Your task to perform on an android device: Search for a new foundation (skincare) product Image 0: 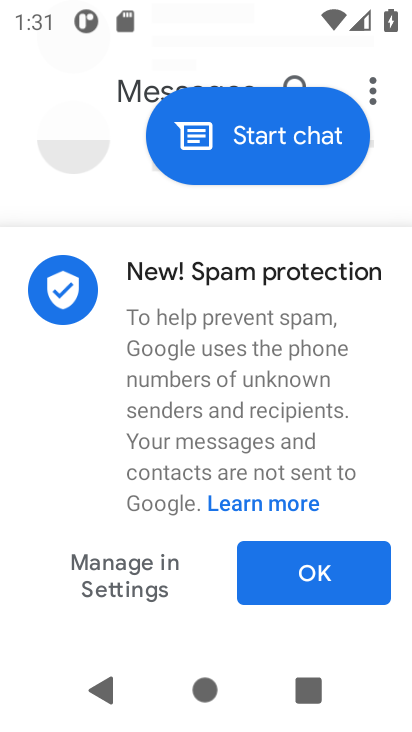
Step 0: press home button
Your task to perform on an android device: Search for a new foundation (skincare) product Image 1: 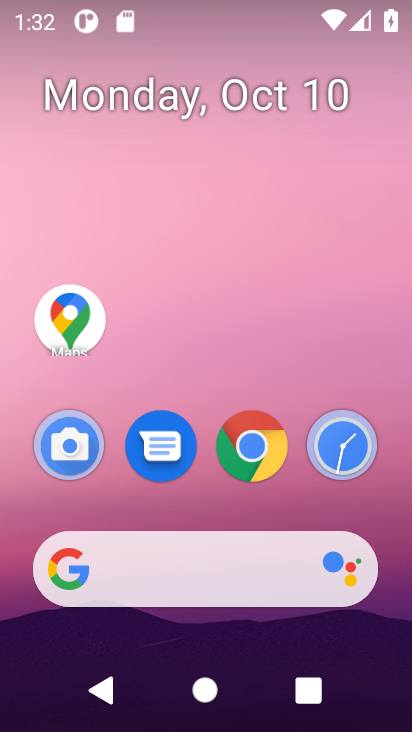
Step 1: click (187, 553)
Your task to perform on an android device: Search for a new foundation (skincare) product Image 2: 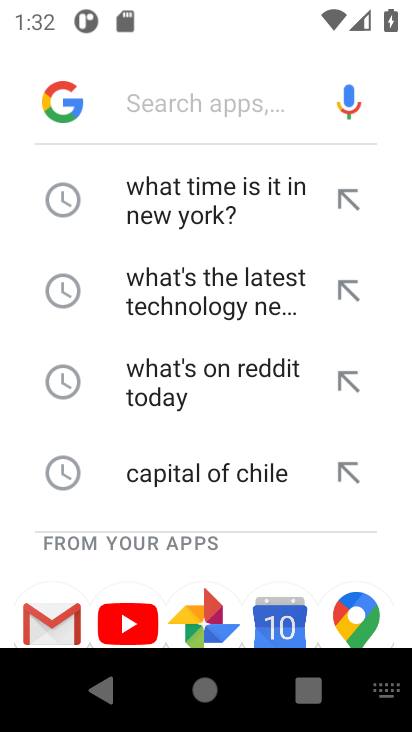
Step 2: type " new foundation (skincare) product"
Your task to perform on an android device: Search for a new foundation (skincare) product Image 3: 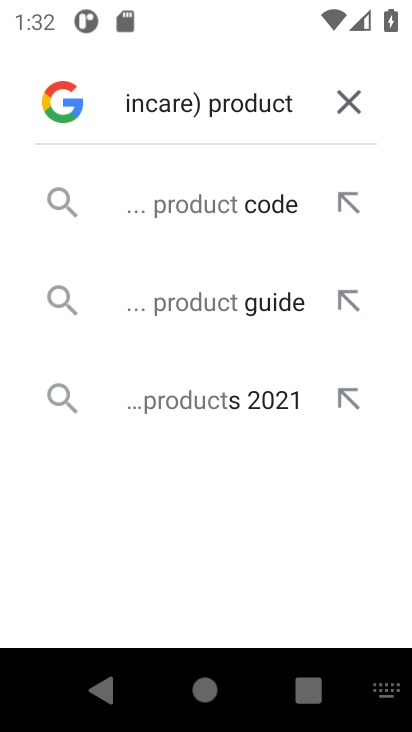
Step 3: click (203, 242)
Your task to perform on an android device: Search for a new foundation (skincare) product Image 4: 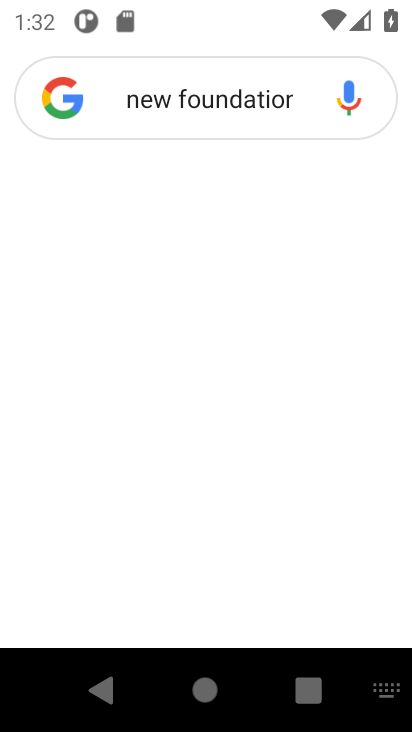
Step 4: task complete